Your task to perform on an android device: Open the calendar app, open the side menu, and click the "Day" option Image 0: 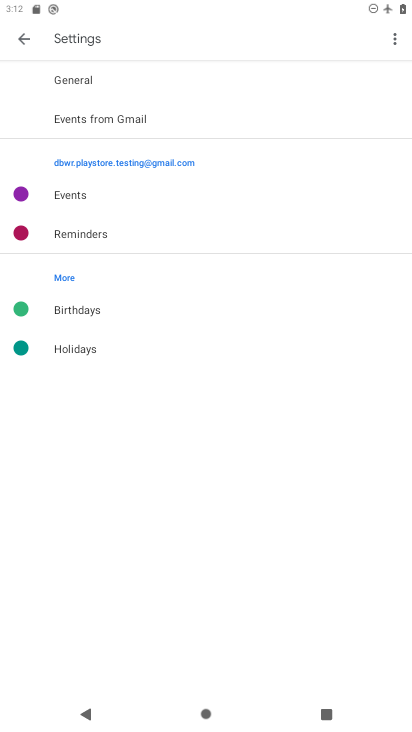
Step 0: press home button
Your task to perform on an android device: Open the calendar app, open the side menu, and click the "Day" option Image 1: 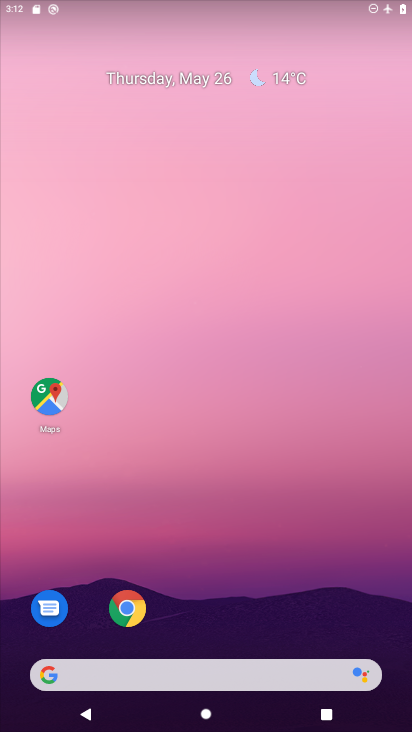
Step 1: drag from (287, 605) to (353, 81)
Your task to perform on an android device: Open the calendar app, open the side menu, and click the "Day" option Image 2: 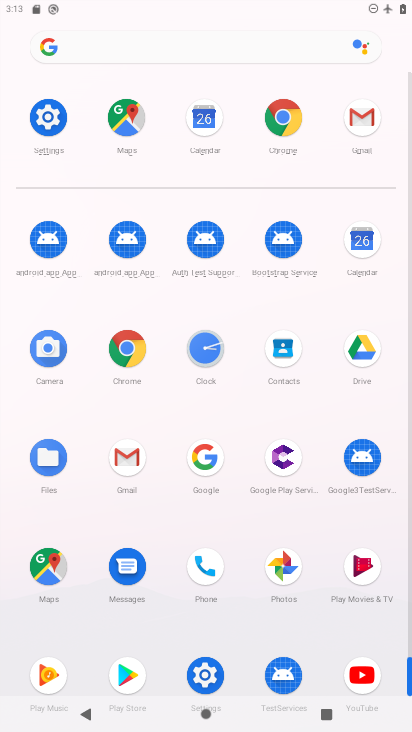
Step 2: click (356, 249)
Your task to perform on an android device: Open the calendar app, open the side menu, and click the "Day" option Image 3: 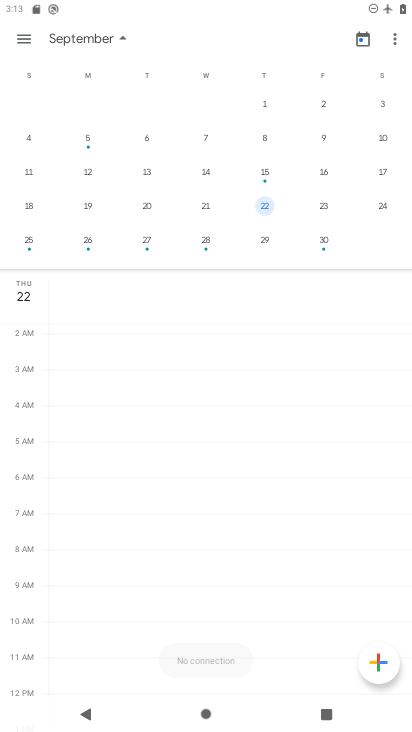
Step 3: click (20, 42)
Your task to perform on an android device: Open the calendar app, open the side menu, and click the "Day" option Image 4: 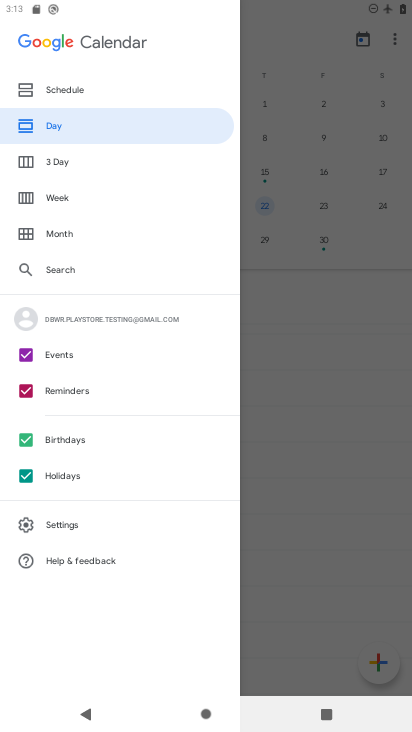
Step 4: click (47, 136)
Your task to perform on an android device: Open the calendar app, open the side menu, and click the "Day" option Image 5: 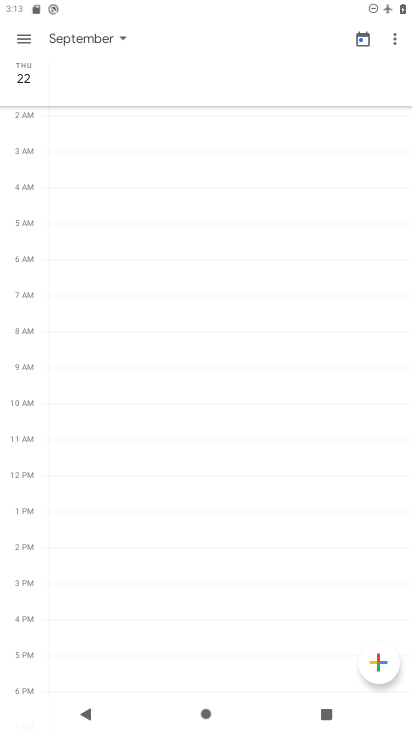
Step 5: task complete